Your task to perform on an android device: see creations saved in the google photos Image 0: 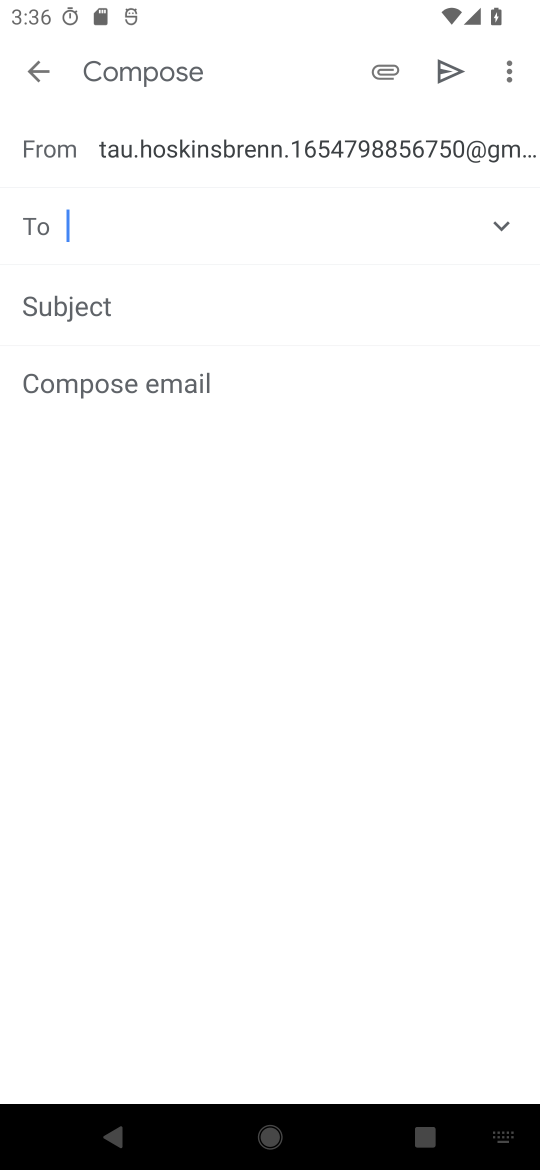
Step 0: press home button
Your task to perform on an android device: see creations saved in the google photos Image 1: 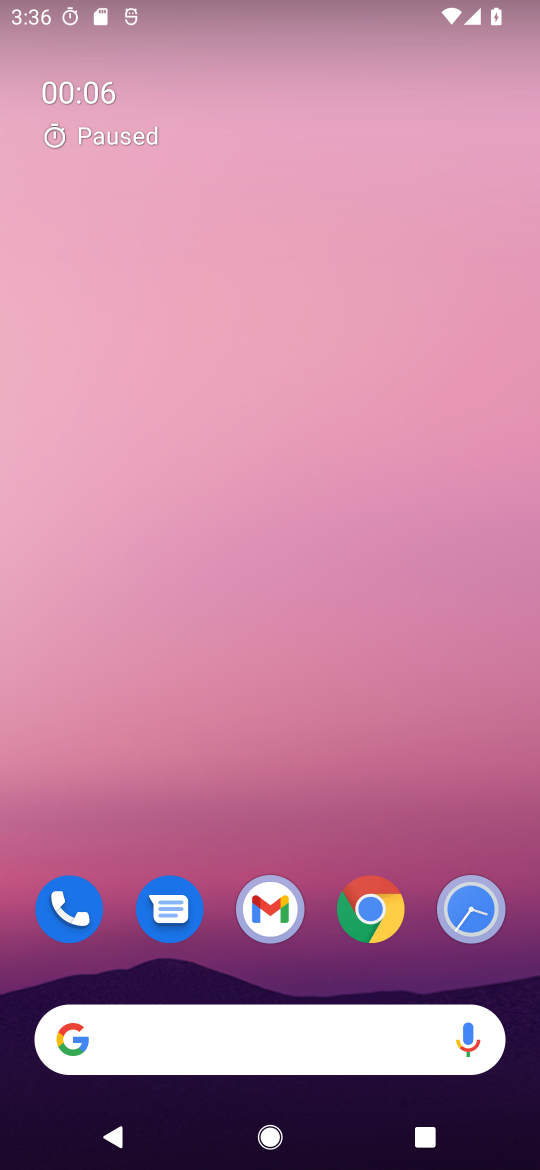
Step 1: click (266, 148)
Your task to perform on an android device: see creations saved in the google photos Image 2: 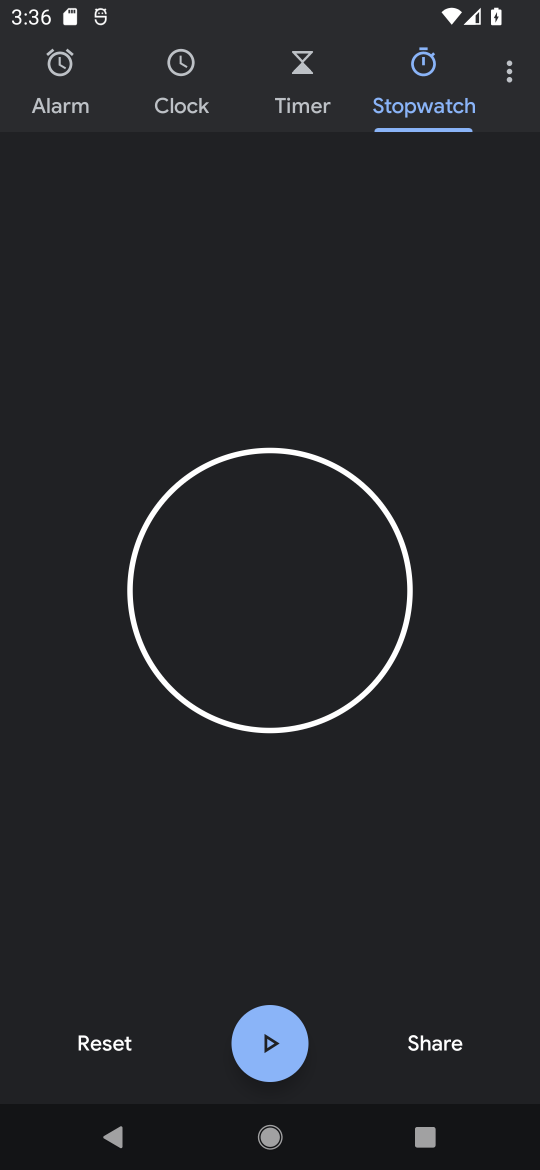
Step 2: press home button
Your task to perform on an android device: see creations saved in the google photos Image 3: 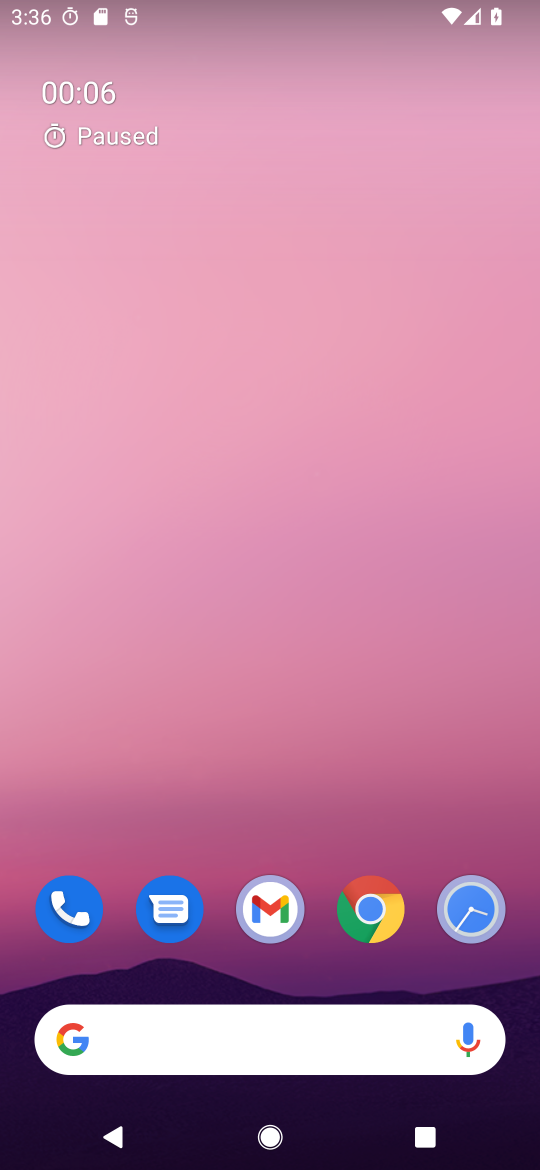
Step 3: drag from (238, 890) to (156, 6)
Your task to perform on an android device: see creations saved in the google photos Image 4: 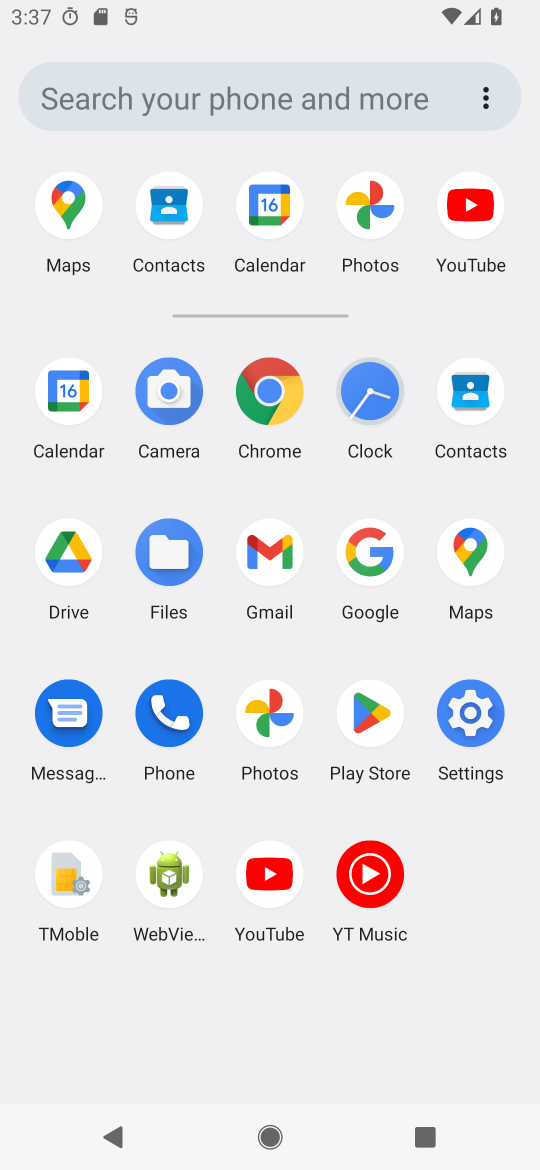
Step 4: click (273, 707)
Your task to perform on an android device: see creations saved in the google photos Image 5: 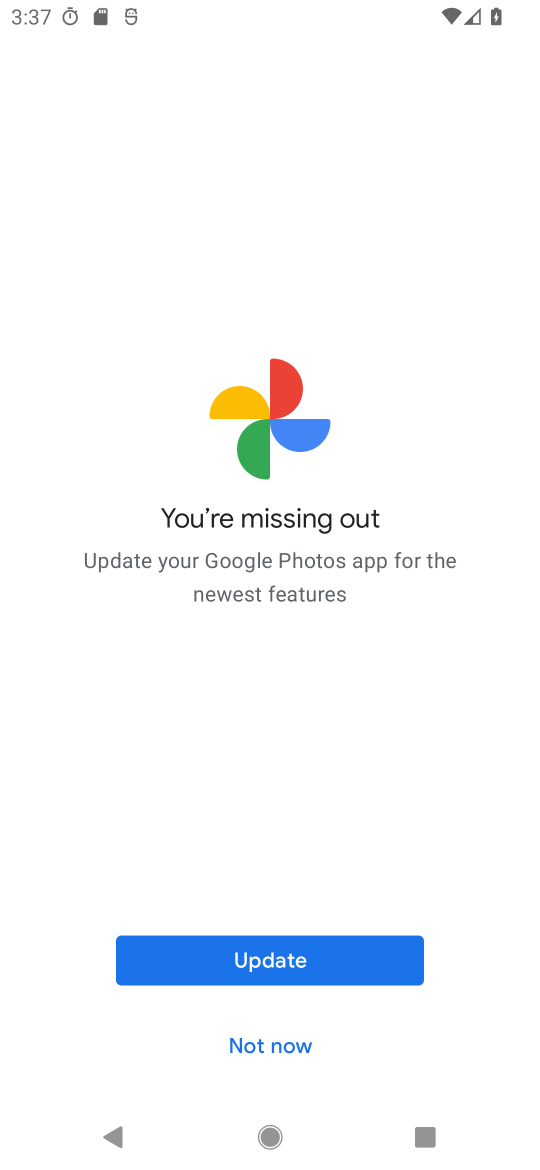
Step 5: click (273, 1046)
Your task to perform on an android device: see creations saved in the google photos Image 6: 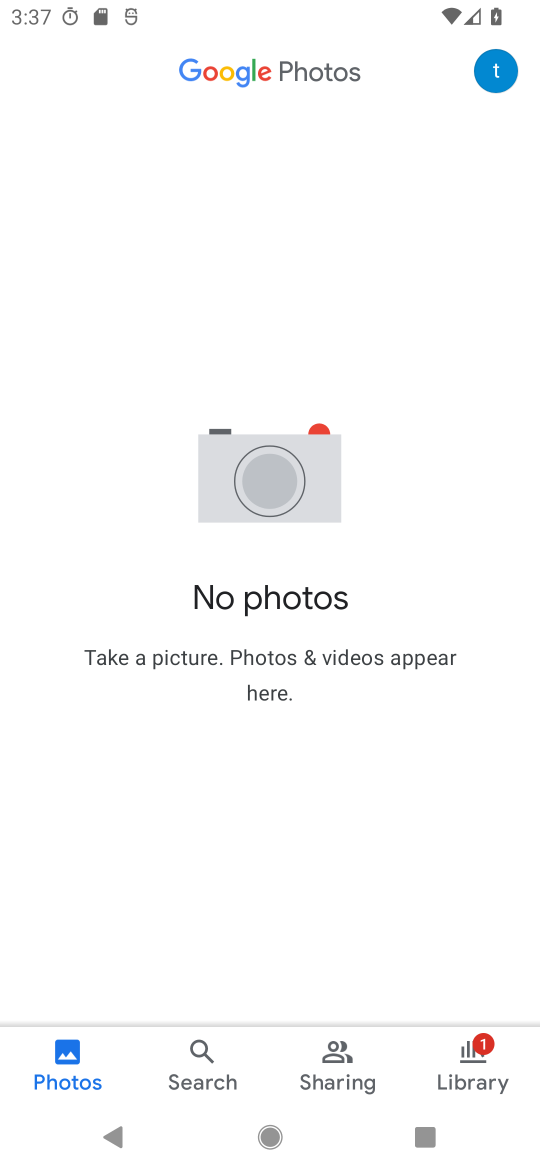
Step 6: click (198, 1065)
Your task to perform on an android device: see creations saved in the google photos Image 7: 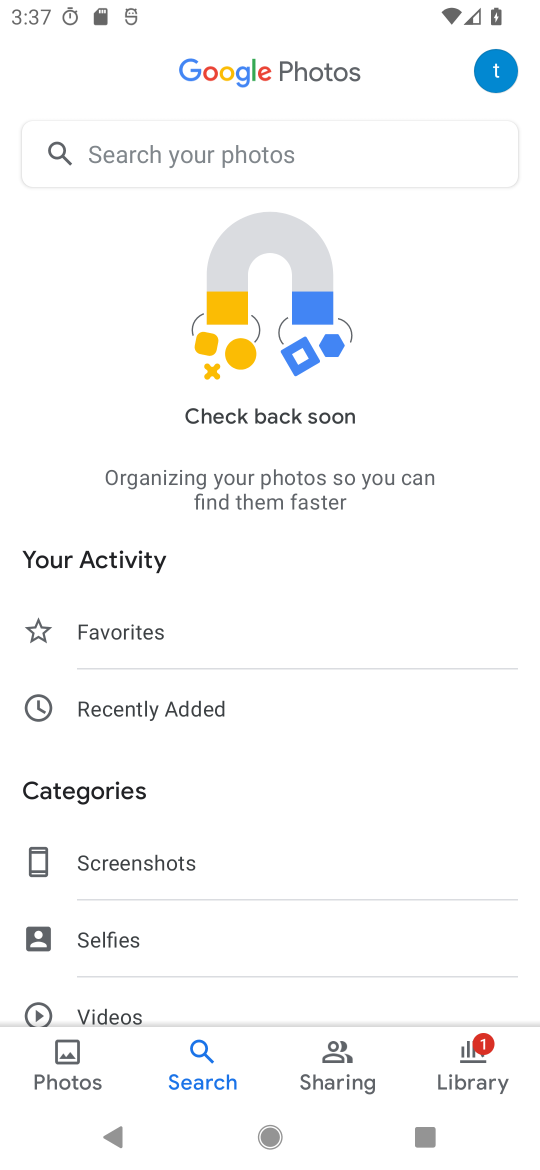
Step 7: click (205, 152)
Your task to perform on an android device: see creations saved in the google photos Image 8: 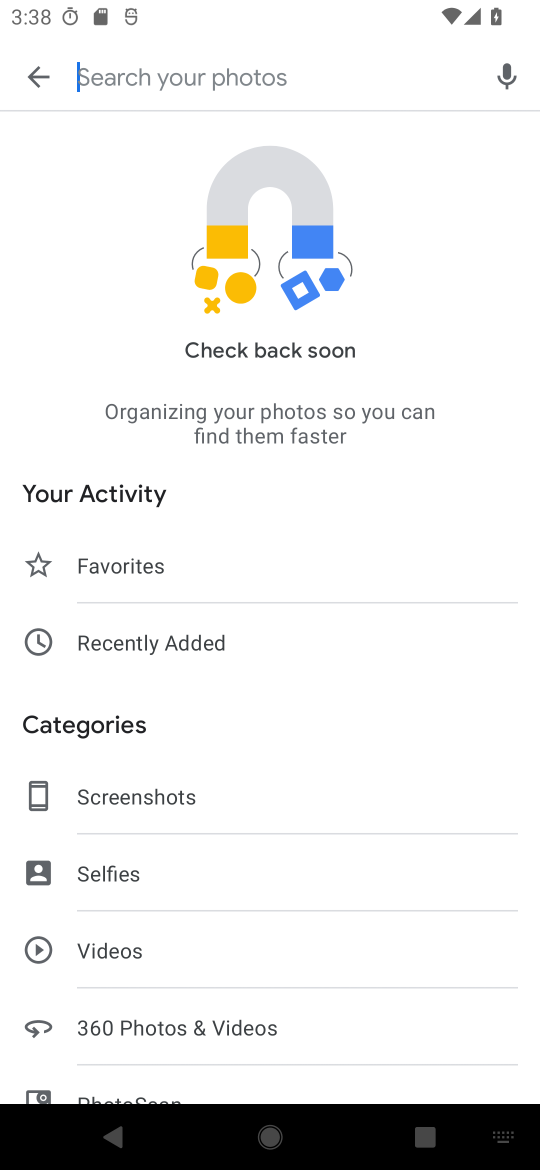
Step 8: type "creations"
Your task to perform on an android device: see creations saved in the google photos Image 9: 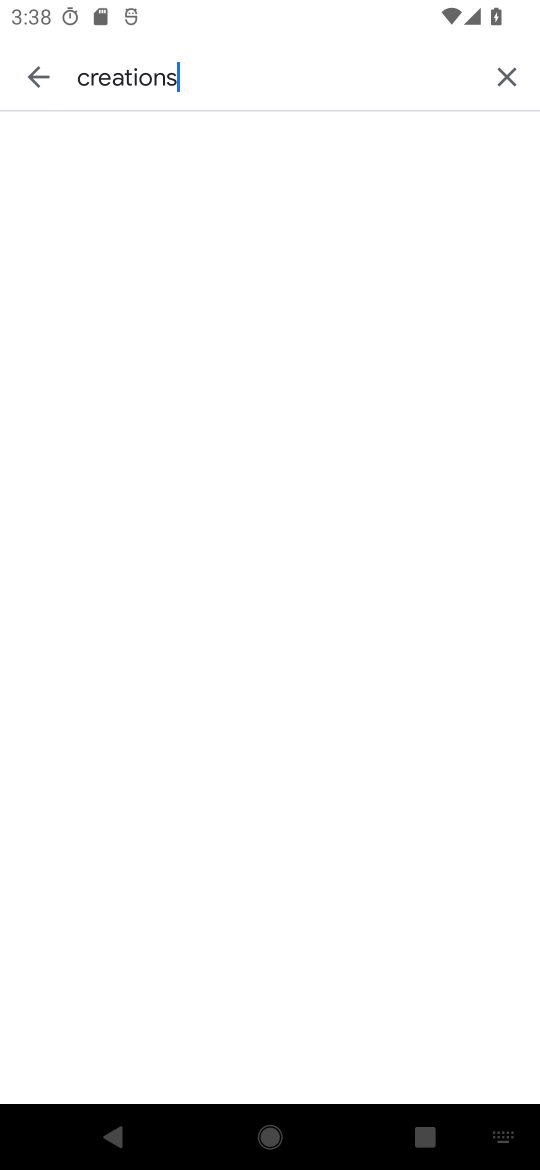
Step 9: click (511, 79)
Your task to perform on an android device: see creations saved in the google photos Image 10: 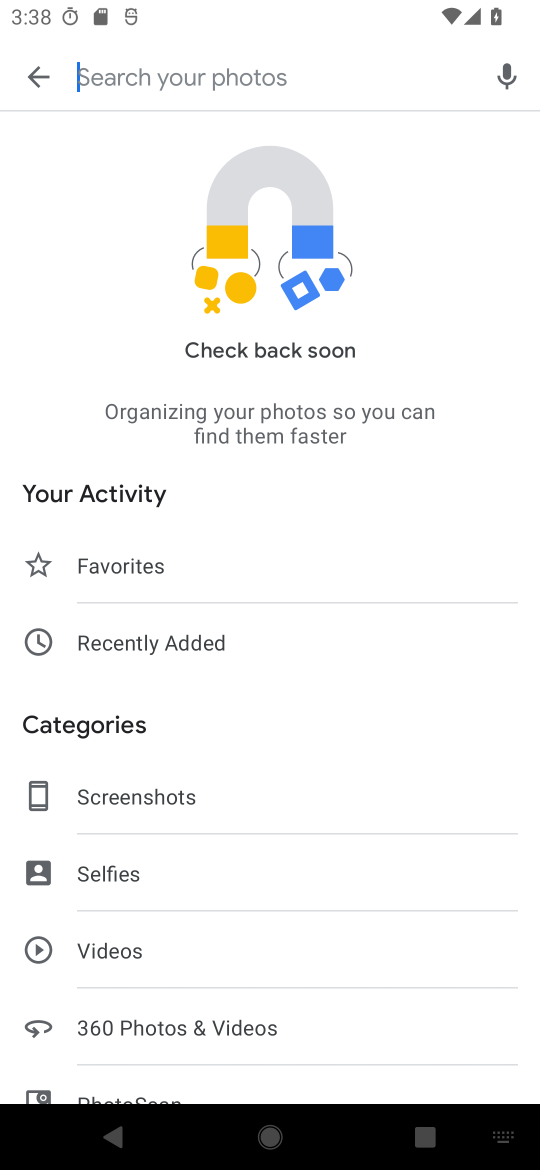
Step 10: drag from (348, 879) to (455, 0)
Your task to perform on an android device: see creations saved in the google photos Image 11: 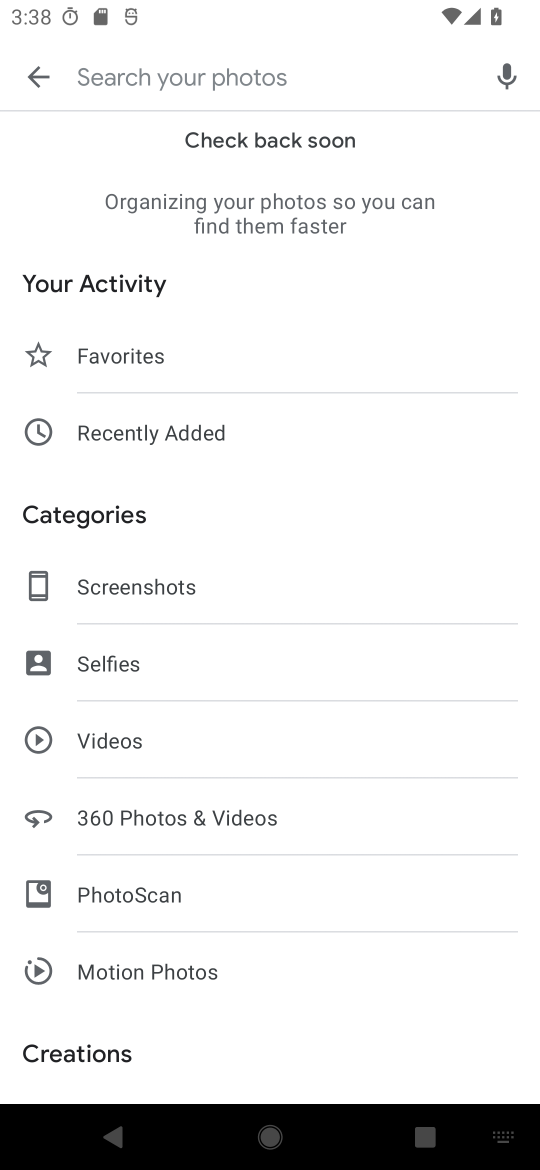
Step 11: drag from (166, 772) to (177, 221)
Your task to perform on an android device: see creations saved in the google photos Image 12: 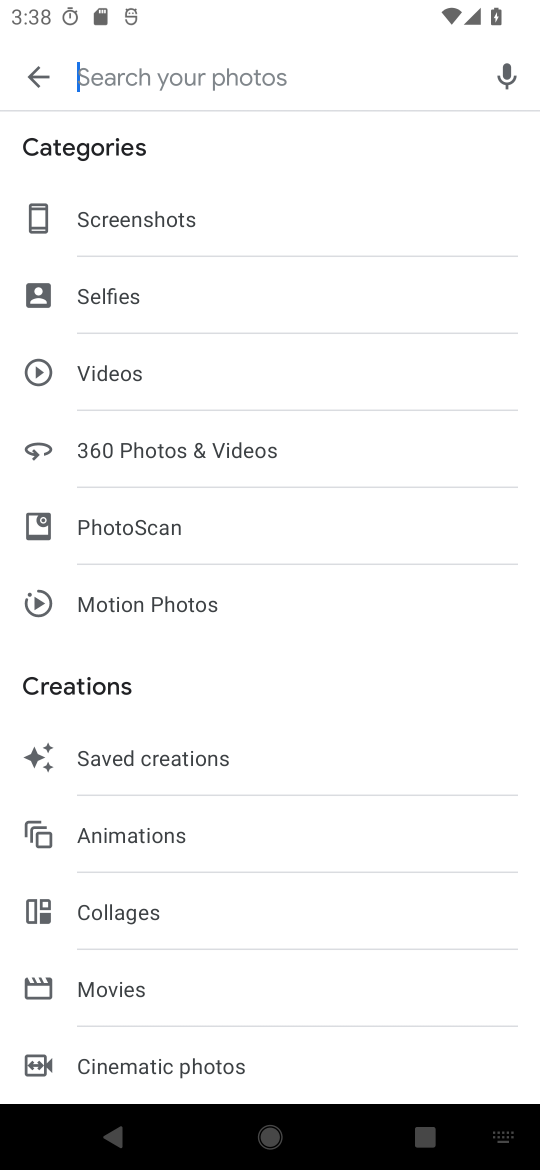
Step 12: click (126, 762)
Your task to perform on an android device: see creations saved in the google photos Image 13: 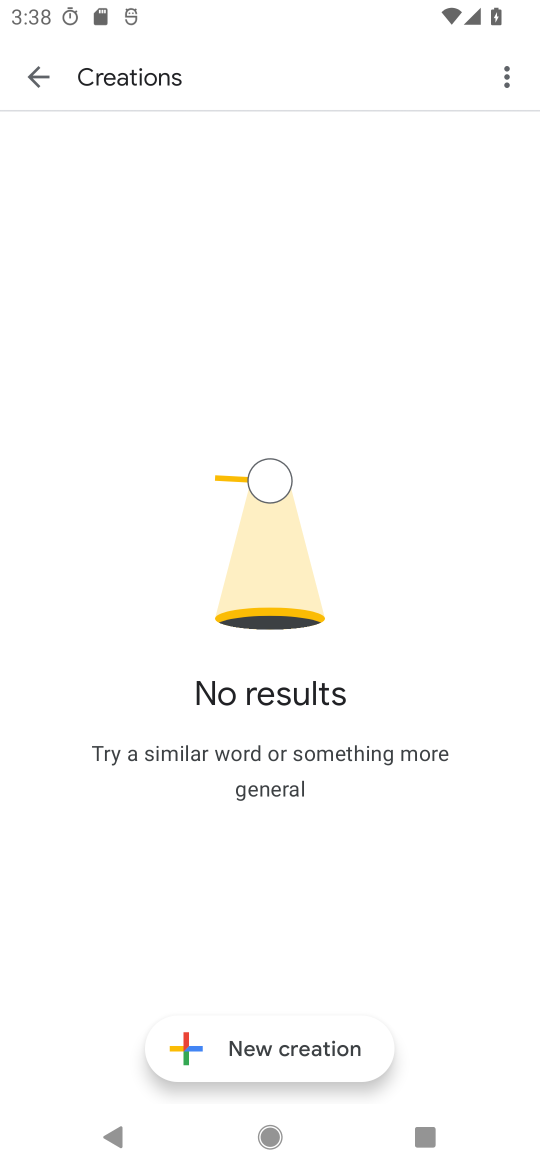
Step 13: task complete